Your task to perform on an android device: Open Google Chrome and open the bookmarks view Image 0: 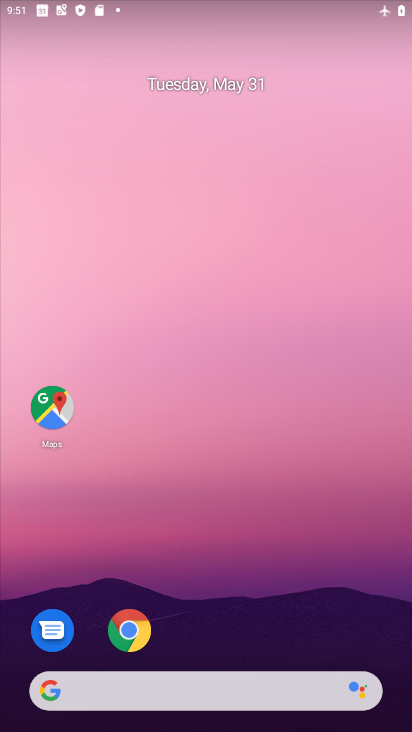
Step 0: drag from (241, 635) to (254, 289)
Your task to perform on an android device: Open Google Chrome and open the bookmarks view Image 1: 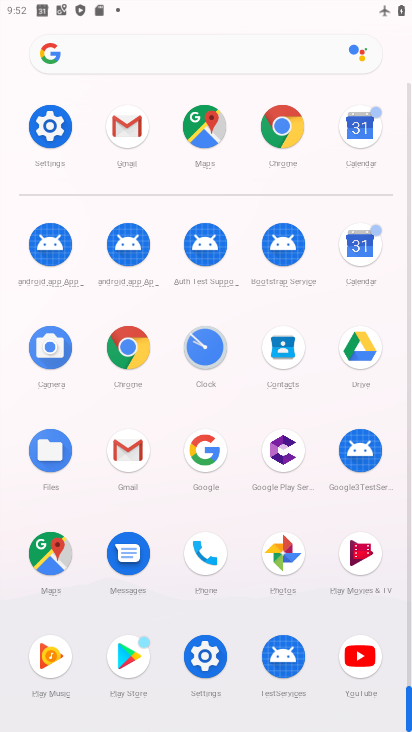
Step 1: click (130, 341)
Your task to perform on an android device: Open Google Chrome and open the bookmarks view Image 2: 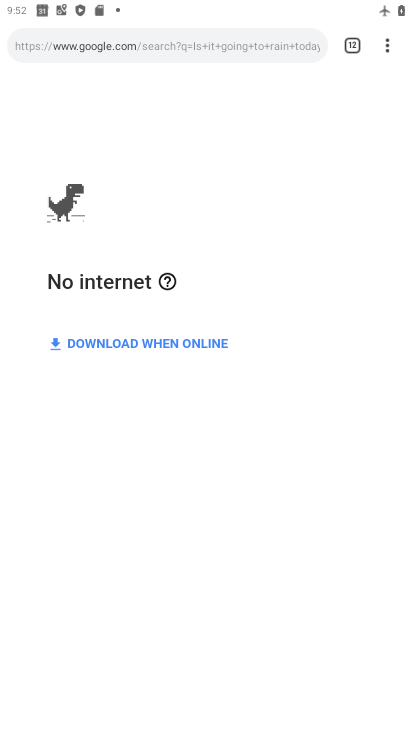
Step 2: click (386, 44)
Your task to perform on an android device: Open Google Chrome and open the bookmarks view Image 3: 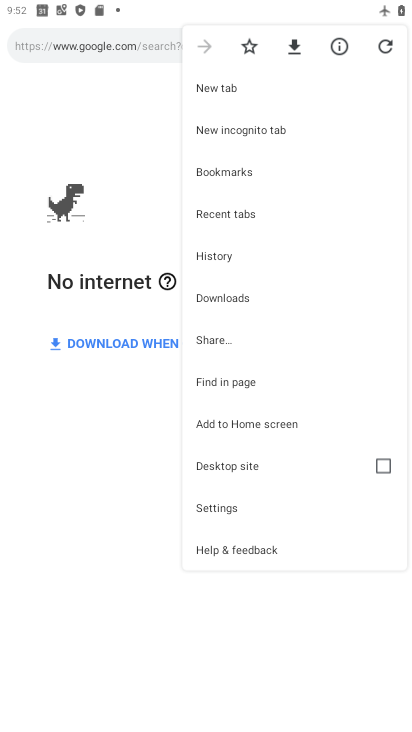
Step 3: drag from (242, 503) to (266, 294)
Your task to perform on an android device: Open Google Chrome and open the bookmarks view Image 4: 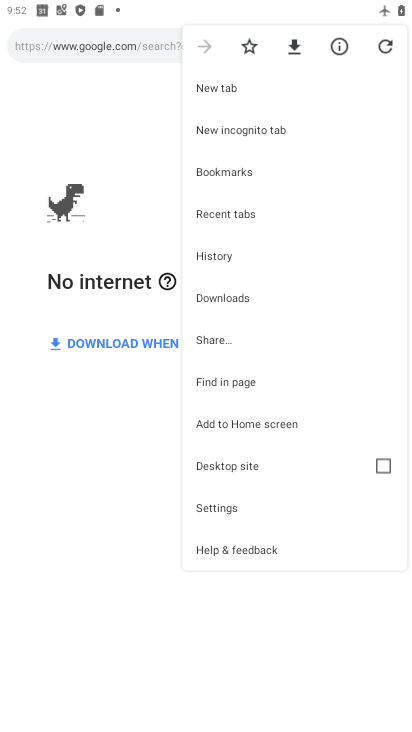
Step 4: click (240, 173)
Your task to perform on an android device: Open Google Chrome and open the bookmarks view Image 5: 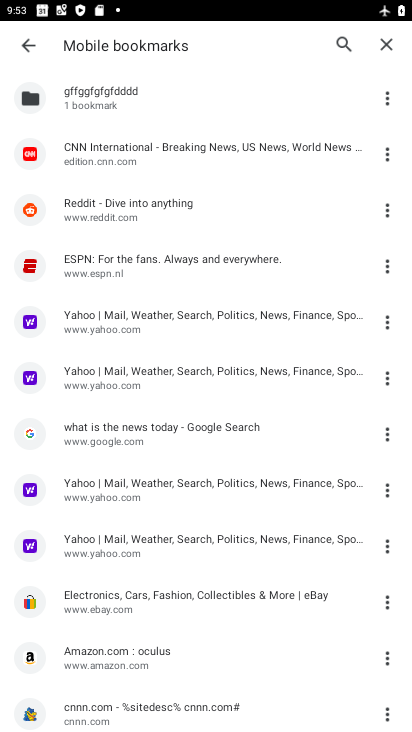
Step 5: task complete